Your task to perform on an android device: turn on bluetooth scan Image 0: 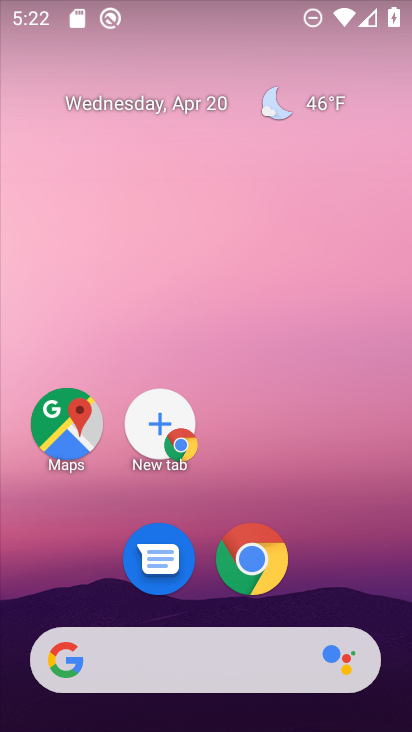
Step 0: drag from (339, 550) to (320, 69)
Your task to perform on an android device: turn on bluetooth scan Image 1: 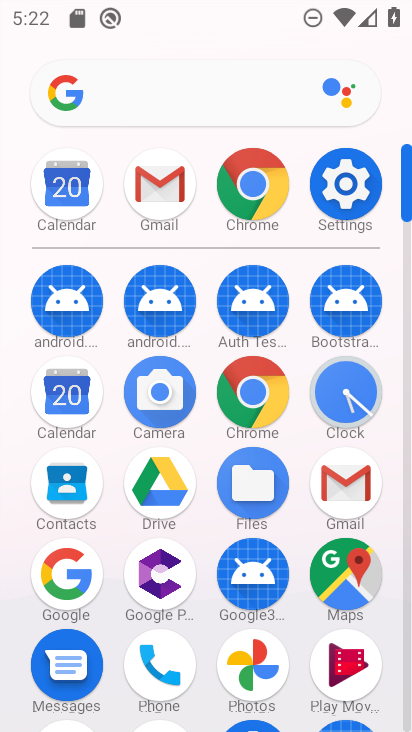
Step 1: click (334, 210)
Your task to perform on an android device: turn on bluetooth scan Image 2: 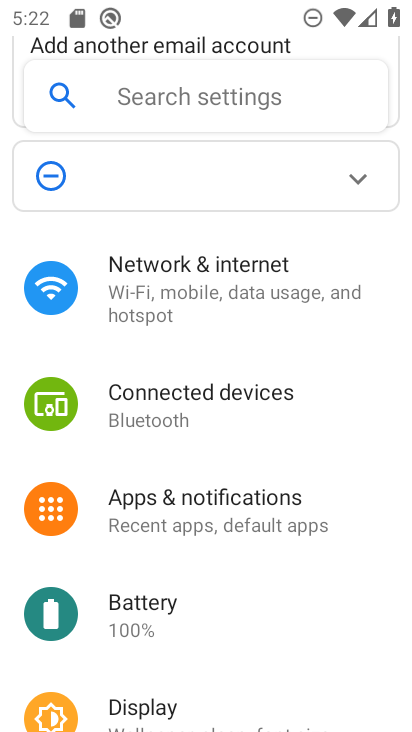
Step 2: drag from (236, 574) to (315, 246)
Your task to perform on an android device: turn on bluetooth scan Image 3: 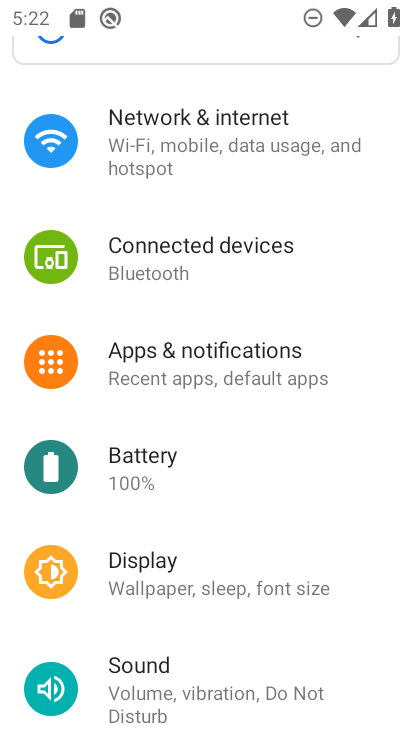
Step 3: drag from (229, 618) to (257, 300)
Your task to perform on an android device: turn on bluetooth scan Image 4: 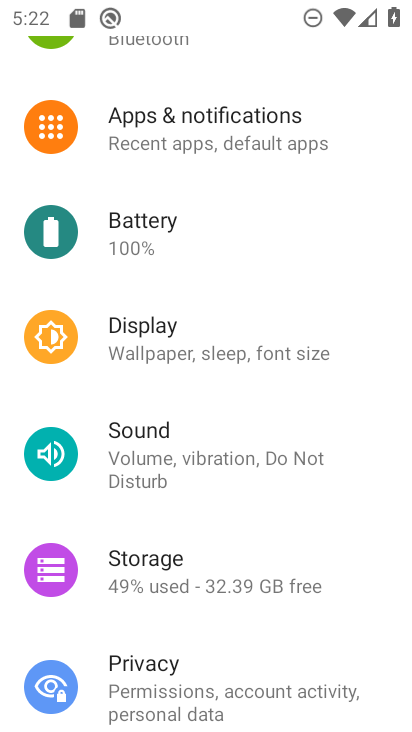
Step 4: drag from (239, 605) to (254, 329)
Your task to perform on an android device: turn on bluetooth scan Image 5: 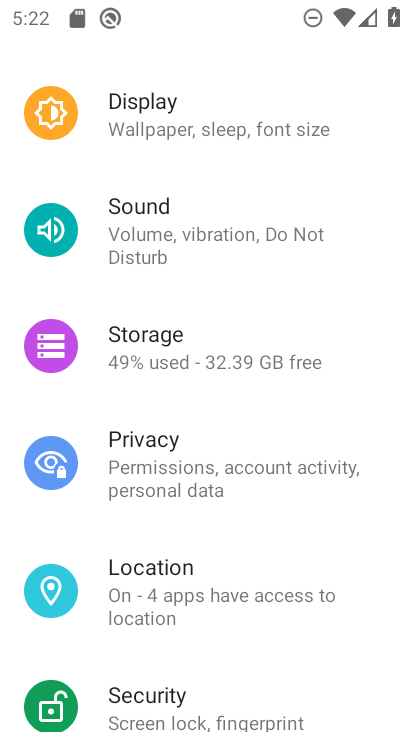
Step 5: click (253, 609)
Your task to perform on an android device: turn on bluetooth scan Image 6: 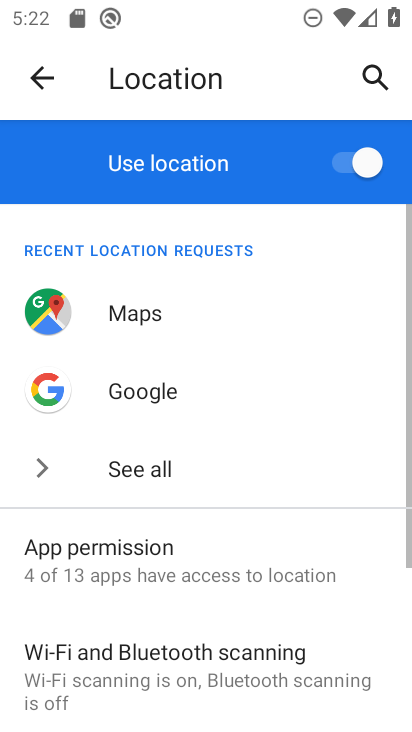
Step 6: click (206, 682)
Your task to perform on an android device: turn on bluetooth scan Image 7: 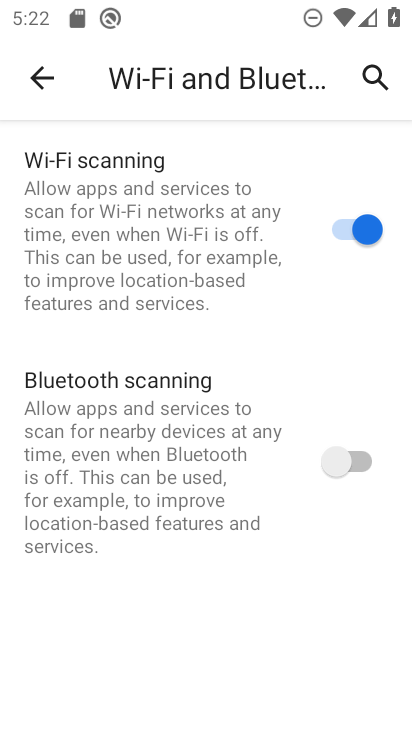
Step 7: click (329, 480)
Your task to perform on an android device: turn on bluetooth scan Image 8: 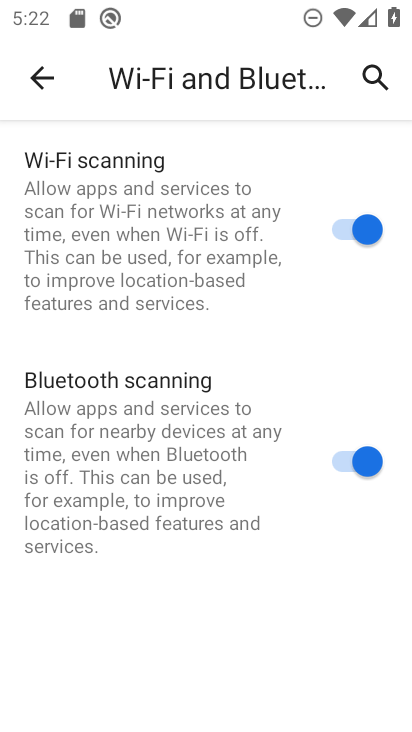
Step 8: task complete